Your task to perform on an android device: open app "Viber Messenger" (install if not already installed) Image 0: 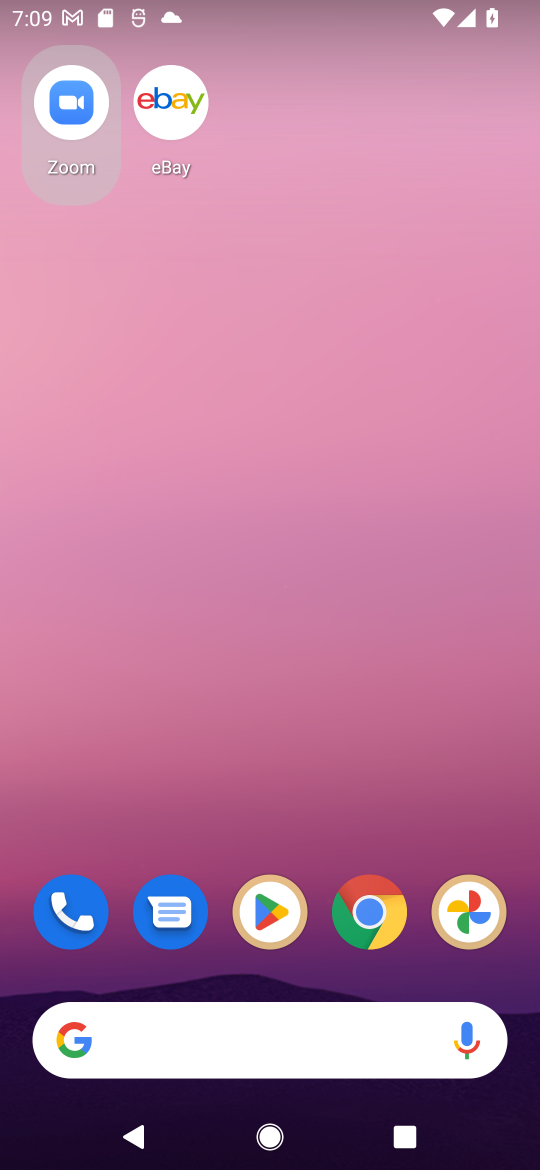
Step 0: click (272, 916)
Your task to perform on an android device: open app "Viber Messenger" (install if not already installed) Image 1: 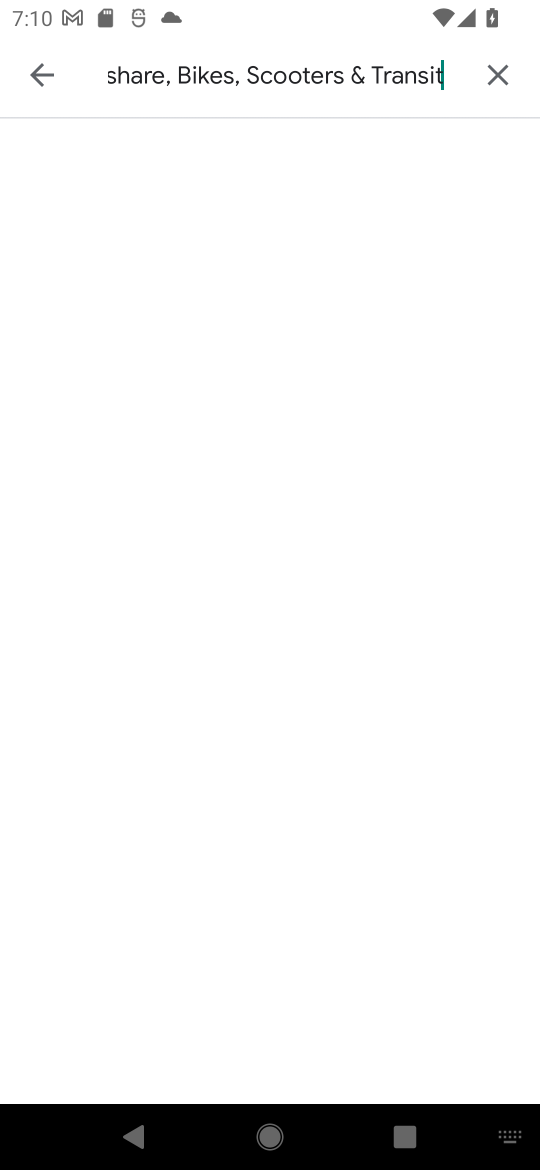
Step 1: click (497, 70)
Your task to perform on an android device: open app "Viber Messenger" (install if not already installed) Image 2: 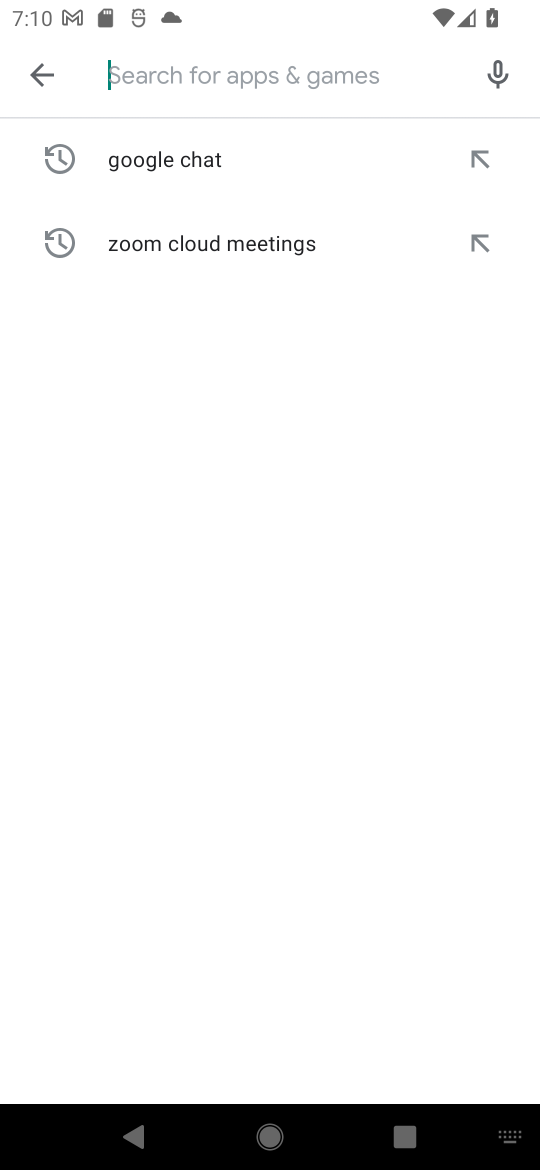
Step 2: type "Viber Messenger"
Your task to perform on an android device: open app "Viber Messenger" (install if not already installed) Image 3: 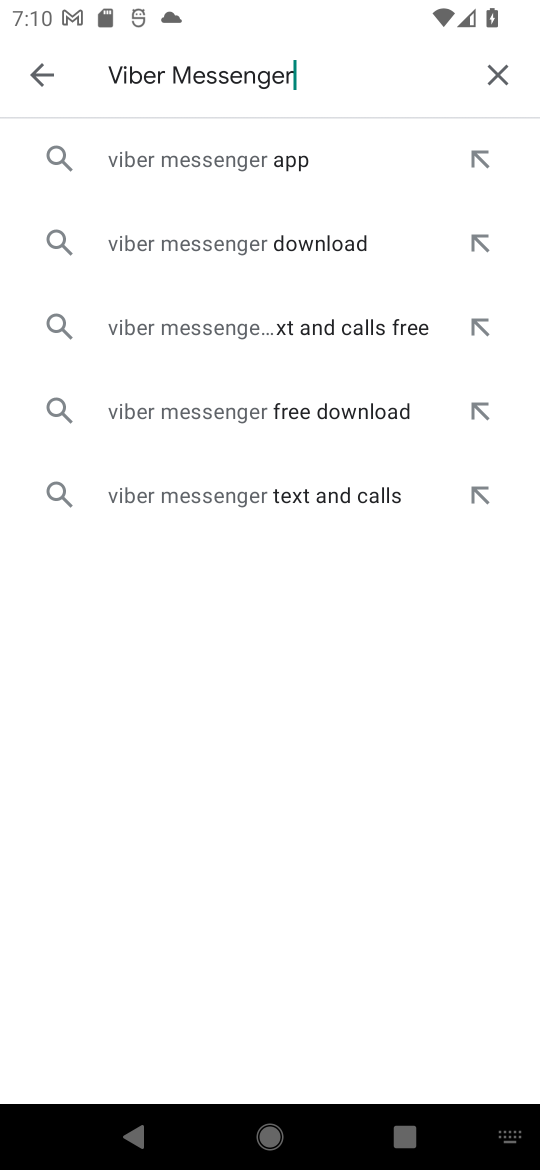
Step 3: click (192, 158)
Your task to perform on an android device: open app "Viber Messenger" (install if not already installed) Image 4: 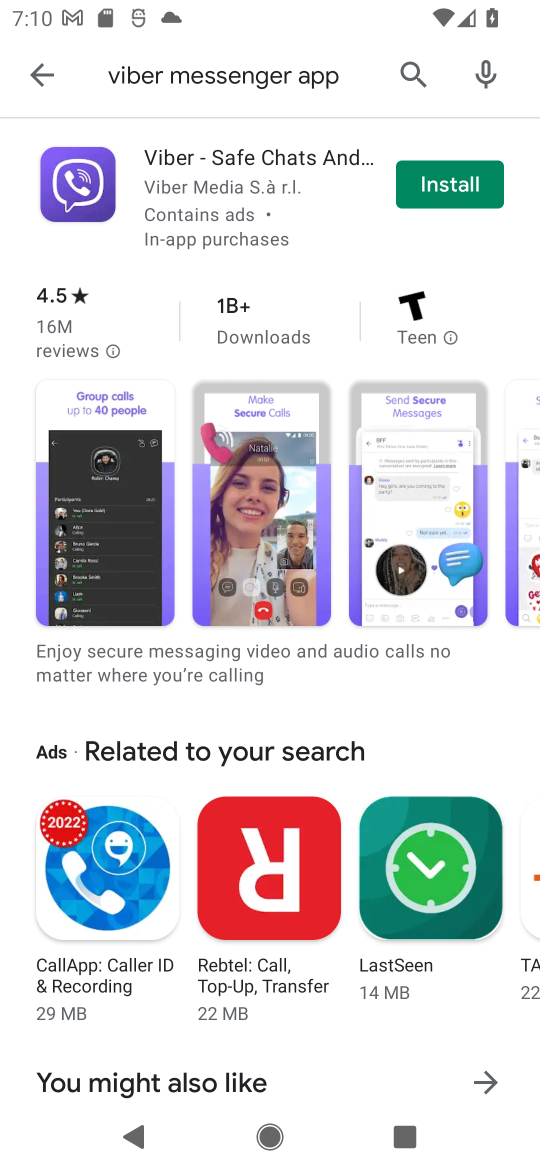
Step 4: click (449, 181)
Your task to perform on an android device: open app "Viber Messenger" (install if not already installed) Image 5: 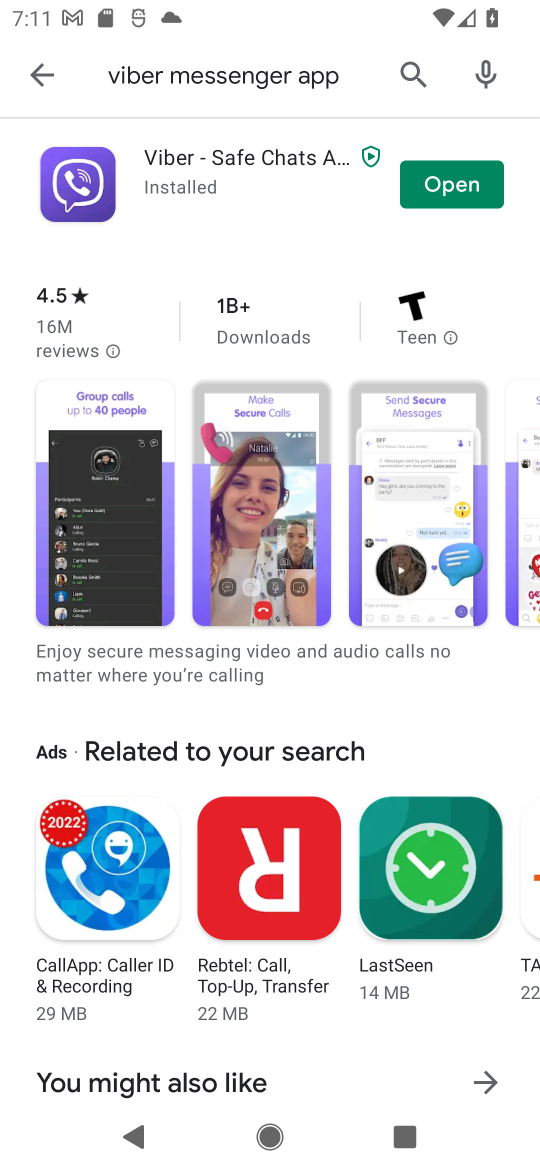
Step 5: click (449, 185)
Your task to perform on an android device: open app "Viber Messenger" (install if not already installed) Image 6: 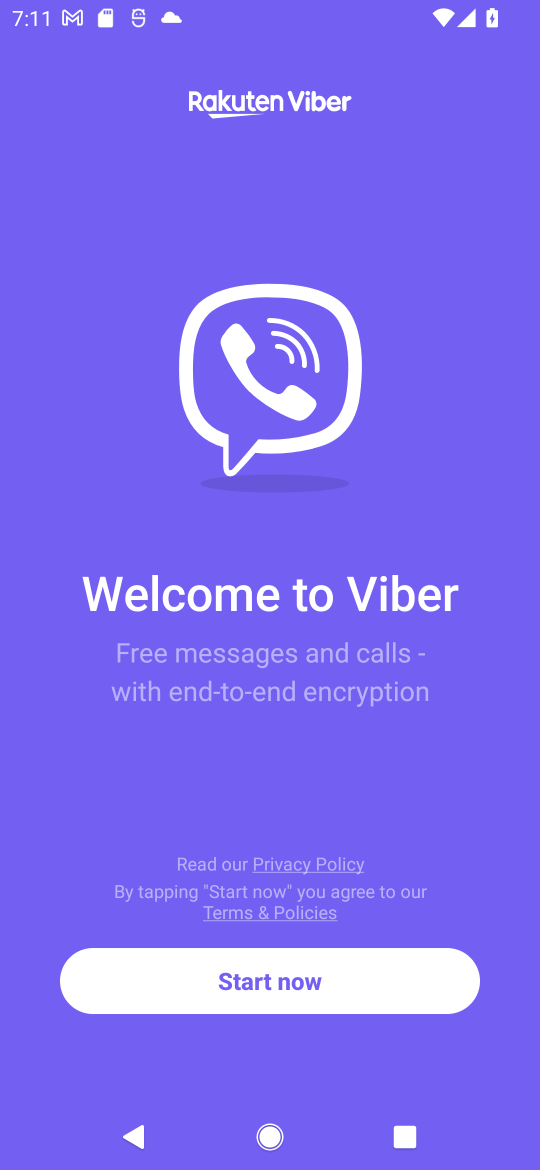
Step 6: click (252, 1038)
Your task to perform on an android device: open app "Viber Messenger" (install if not already installed) Image 7: 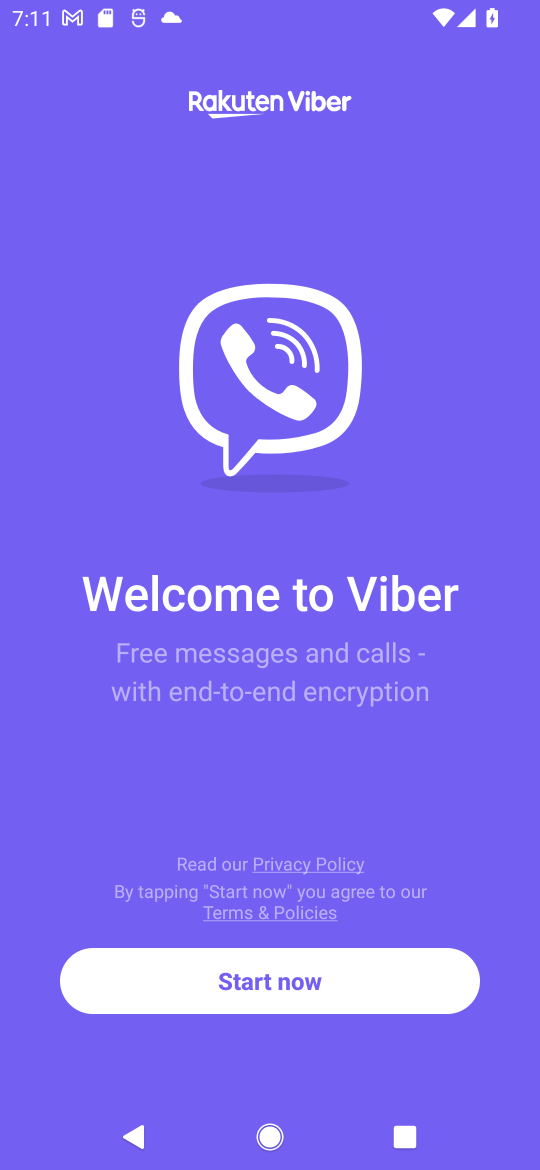
Step 7: task complete